Your task to perform on an android device: Open Yahoo.com Image 0: 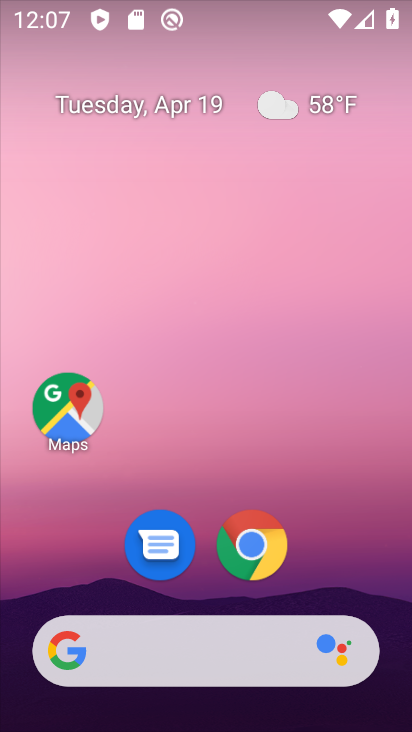
Step 0: click (261, 537)
Your task to perform on an android device: Open Yahoo.com Image 1: 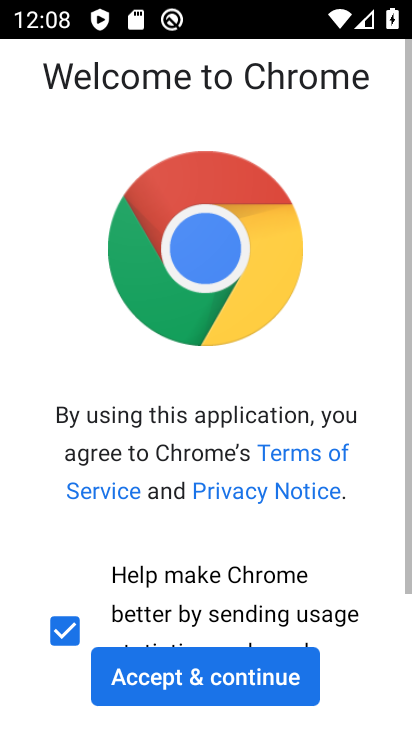
Step 1: click (202, 707)
Your task to perform on an android device: Open Yahoo.com Image 2: 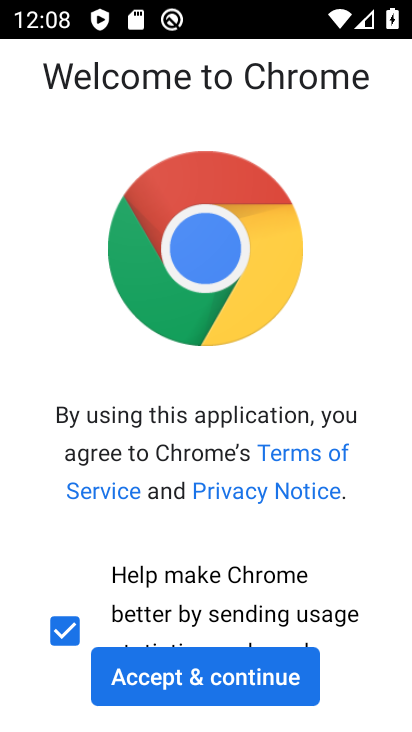
Step 2: click (210, 673)
Your task to perform on an android device: Open Yahoo.com Image 3: 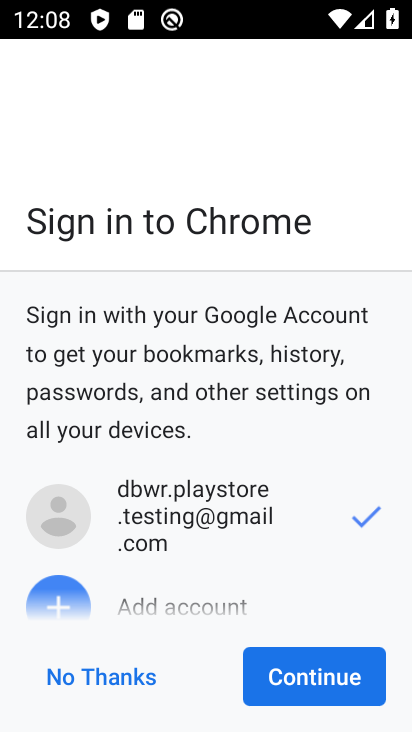
Step 3: click (297, 678)
Your task to perform on an android device: Open Yahoo.com Image 4: 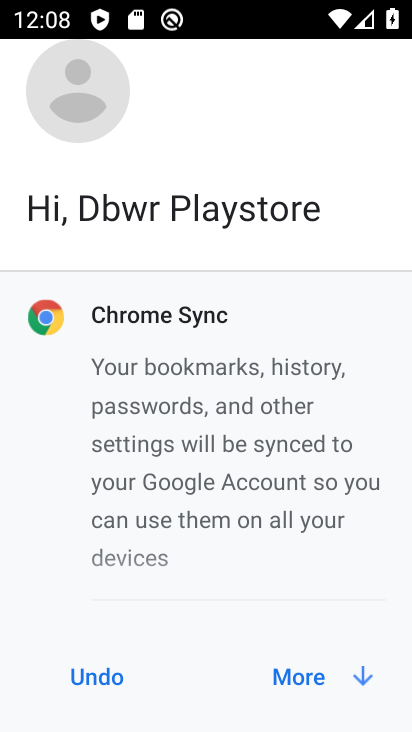
Step 4: click (306, 664)
Your task to perform on an android device: Open Yahoo.com Image 5: 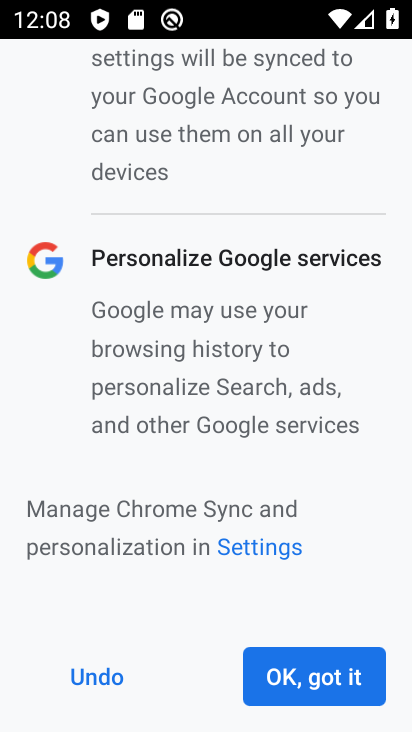
Step 5: click (313, 682)
Your task to perform on an android device: Open Yahoo.com Image 6: 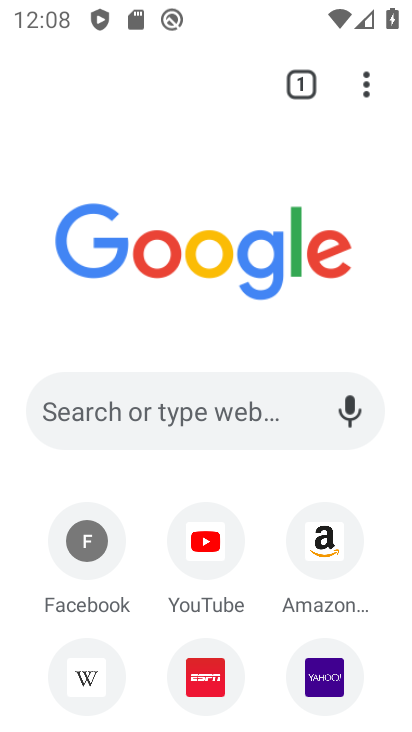
Step 6: click (323, 672)
Your task to perform on an android device: Open Yahoo.com Image 7: 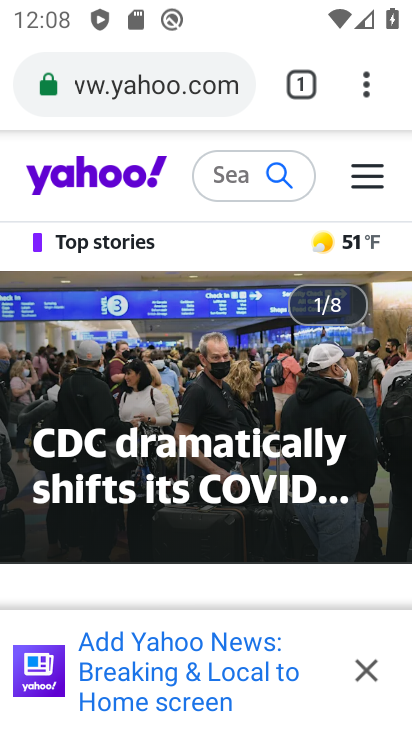
Step 7: task complete